Your task to perform on an android device: Open settings Image 0: 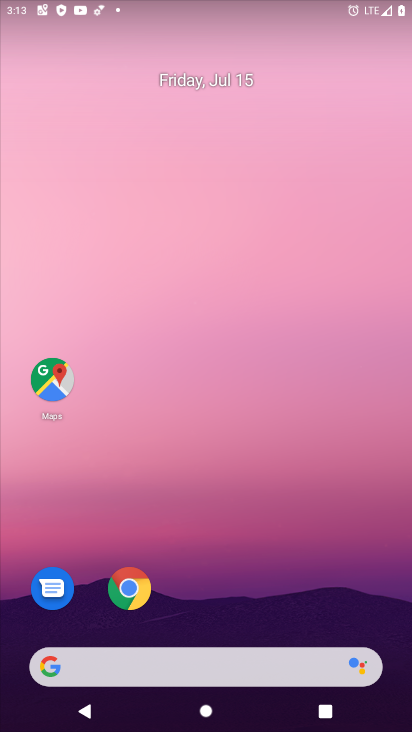
Step 0: drag from (210, 665) to (168, 158)
Your task to perform on an android device: Open settings Image 1: 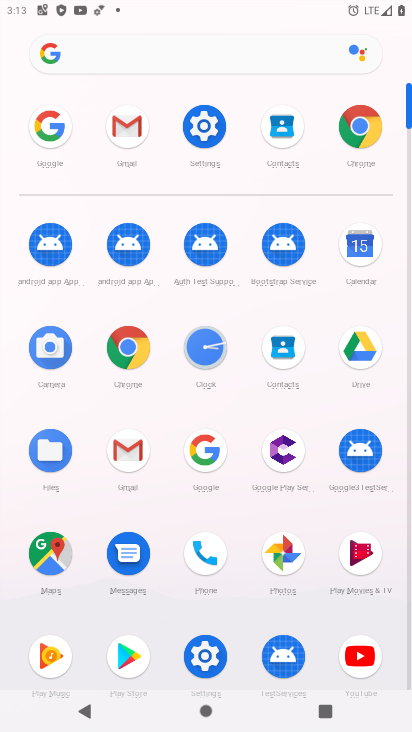
Step 1: click (203, 127)
Your task to perform on an android device: Open settings Image 2: 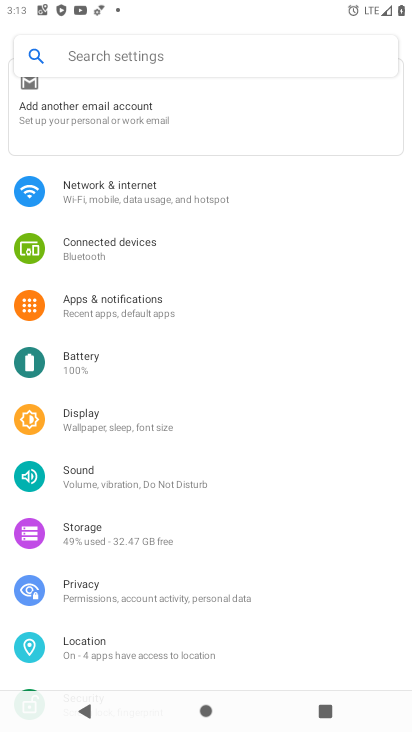
Step 2: task complete